Your task to perform on an android device: Toggle the flashlight Image 0: 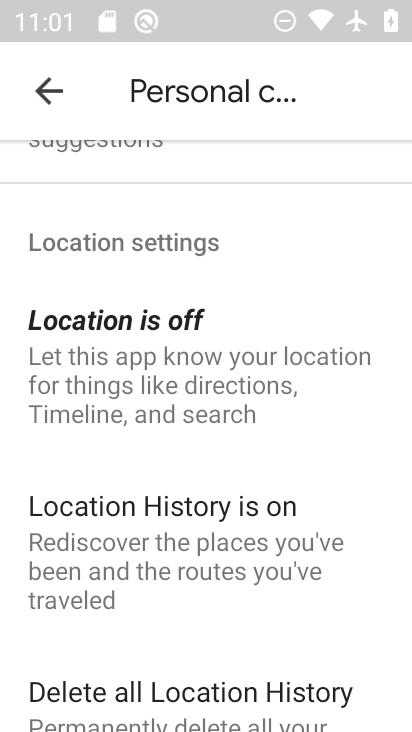
Step 0: press home button
Your task to perform on an android device: Toggle the flashlight Image 1: 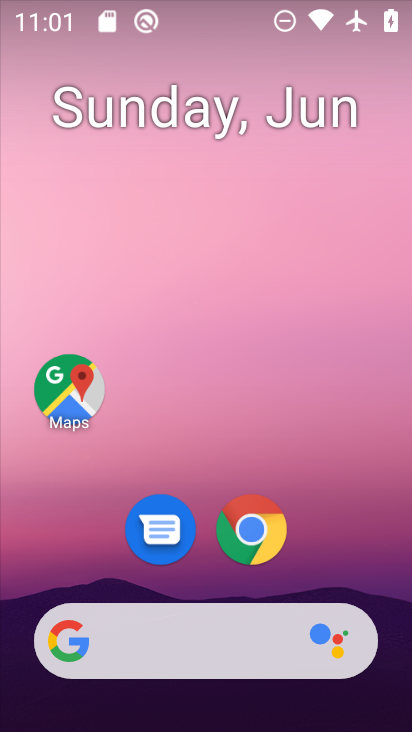
Step 1: drag from (240, 19) to (243, 444)
Your task to perform on an android device: Toggle the flashlight Image 2: 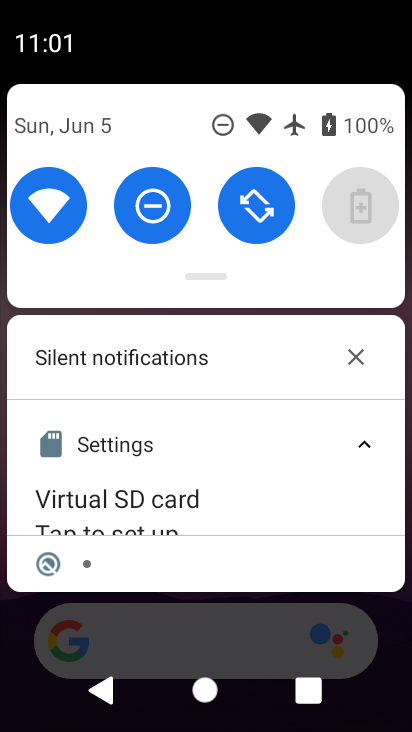
Step 2: drag from (211, 284) to (208, 542)
Your task to perform on an android device: Toggle the flashlight Image 3: 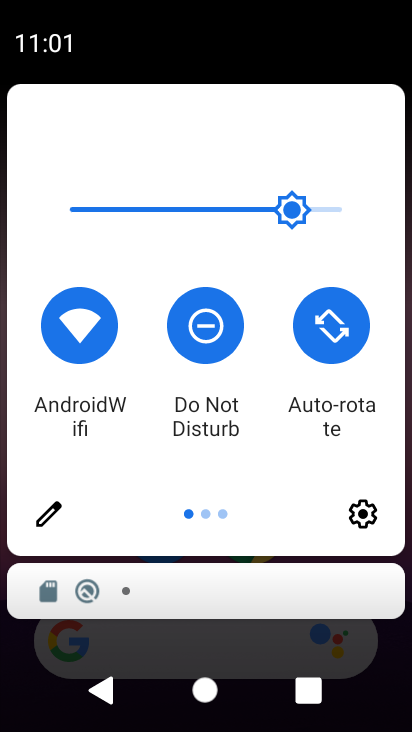
Step 3: click (42, 511)
Your task to perform on an android device: Toggle the flashlight Image 4: 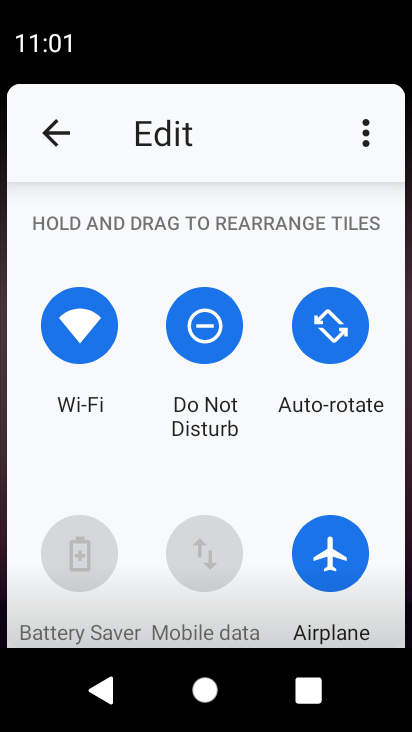
Step 4: task complete